Your task to perform on an android device: set the stopwatch Image 0: 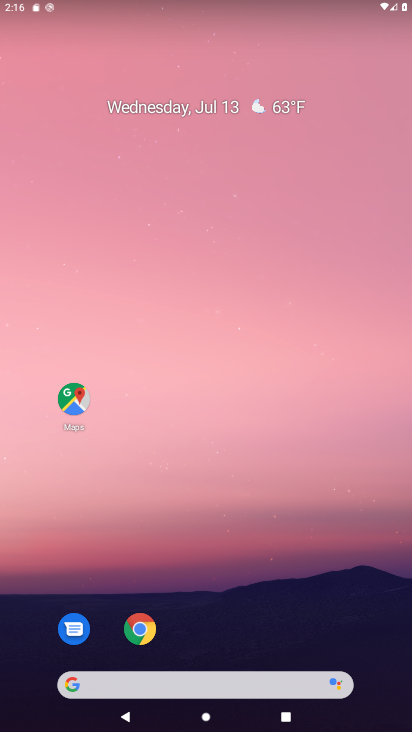
Step 0: click (373, 55)
Your task to perform on an android device: set the stopwatch Image 1: 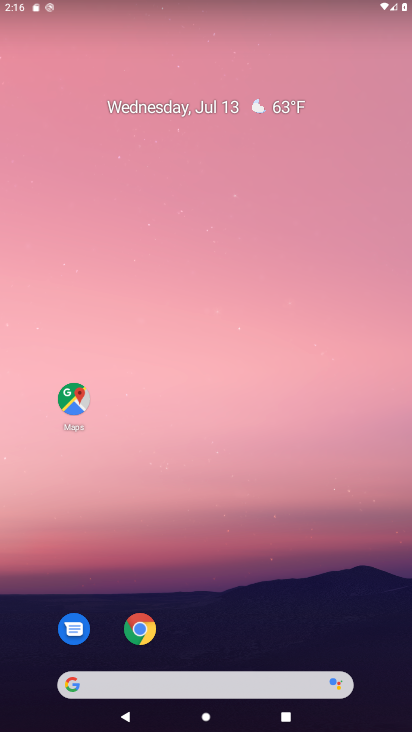
Step 1: drag from (215, 512) to (220, 120)
Your task to perform on an android device: set the stopwatch Image 2: 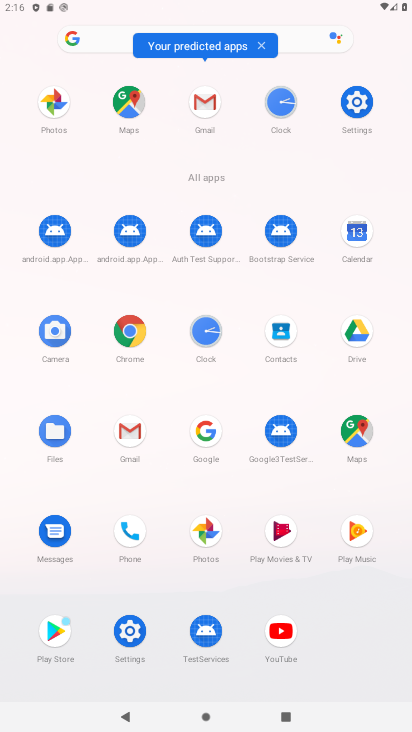
Step 2: click (207, 346)
Your task to perform on an android device: set the stopwatch Image 3: 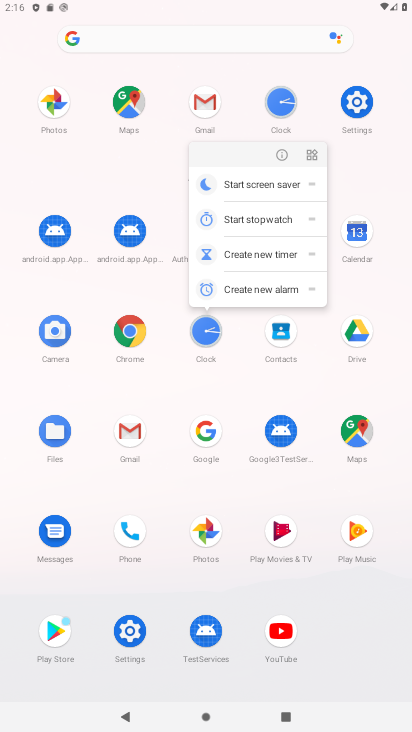
Step 3: click (281, 156)
Your task to perform on an android device: set the stopwatch Image 4: 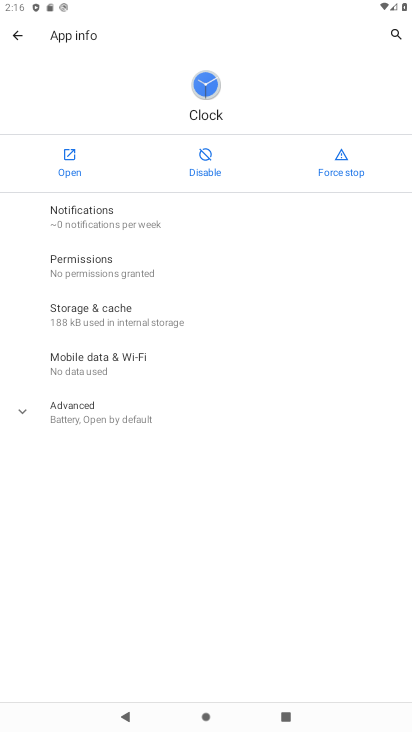
Step 4: click (73, 158)
Your task to perform on an android device: set the stopwatch Image 5: 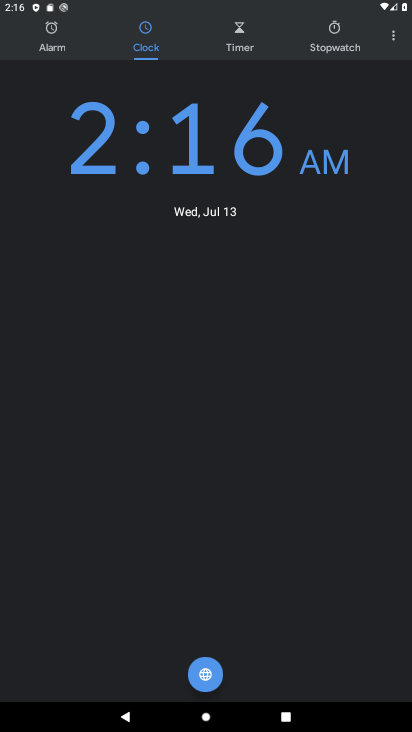
Step 5: click (339, 34)
Your task to perform on an android device: set the stopwatch Image 6: 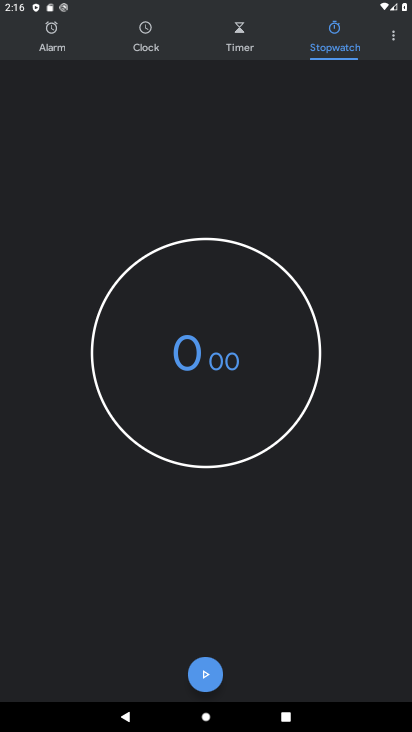
Step 6: click (206, 676)
Your task to perform on an android device: set the stopwatch Image 7: 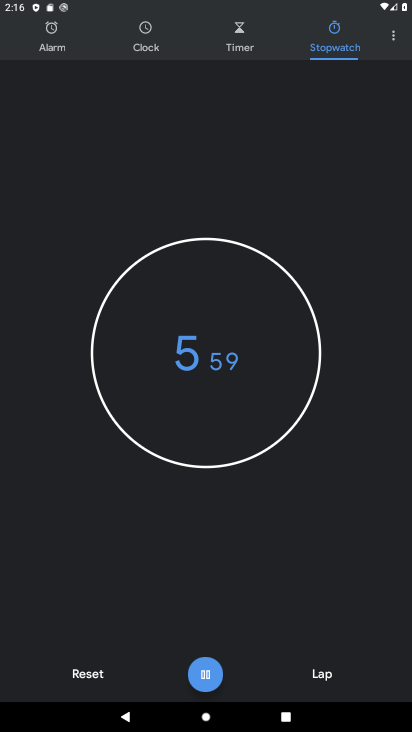
Step 7: task complete